Your task to perform on an android device: turn off data saver in the chrome app Image 0: 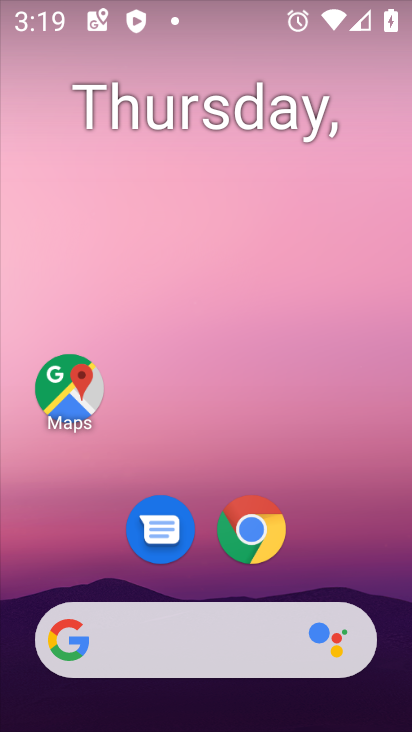
Step 0: click (252, 527)
Your task to perform on an android device: turn off data saver in the chrome app Image 1: 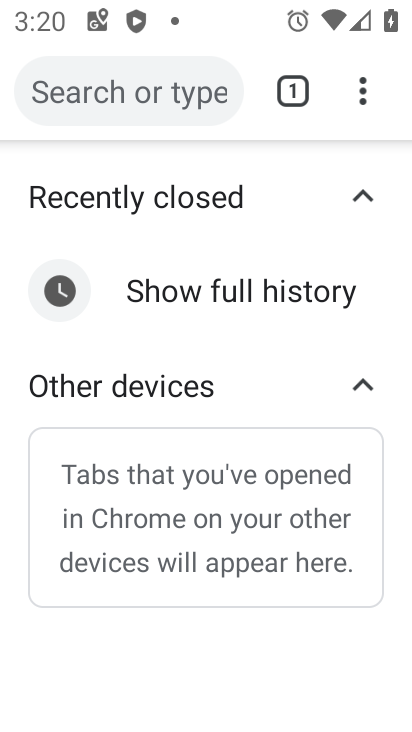
Step 1: click (363, 90)
Your task to perform on an android device: turn off data saver in the chrome app Image 2: 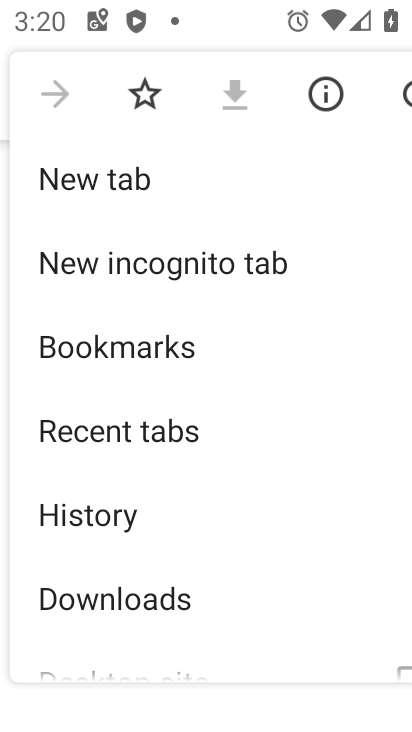
Step 2: drag from (207, 565) to (239, 386)
Your task to perform on an android device: turn off data saver in the chrome app Image 3: 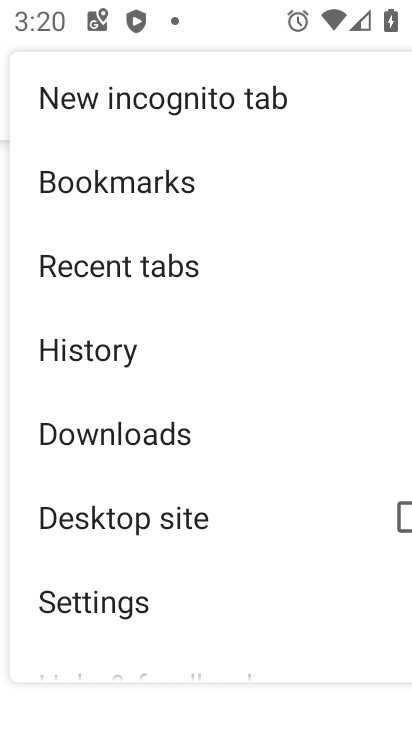
Step 3: click (93, 603)
Your task to perform on an android device: turn off data saver in the chrome app Image 4: 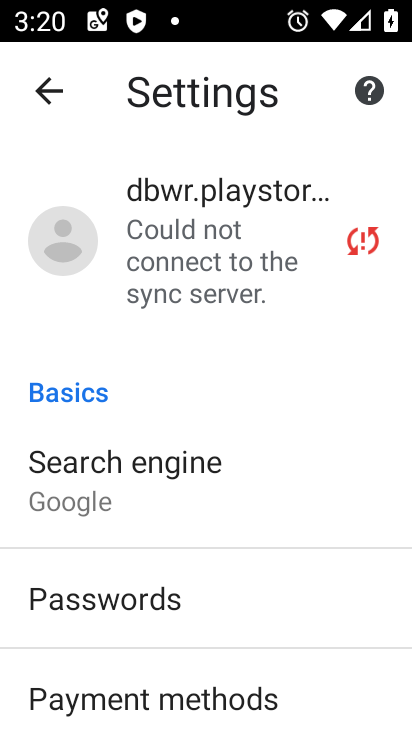
Step 4: drag from (248, 612) to (297, 433)
Your task to perform on an android device: turn off data saver in the chrome app Image 5: 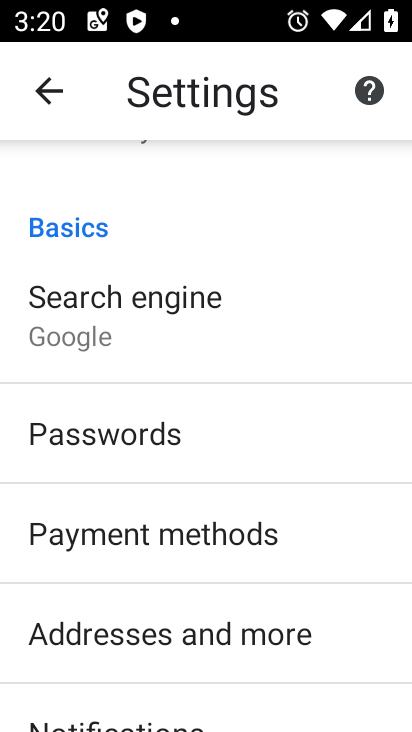
Step 5: drag from (271, 580) to (310, 449)
Your task to perform on an android device: turn off data saver in the chrome app Image 6: 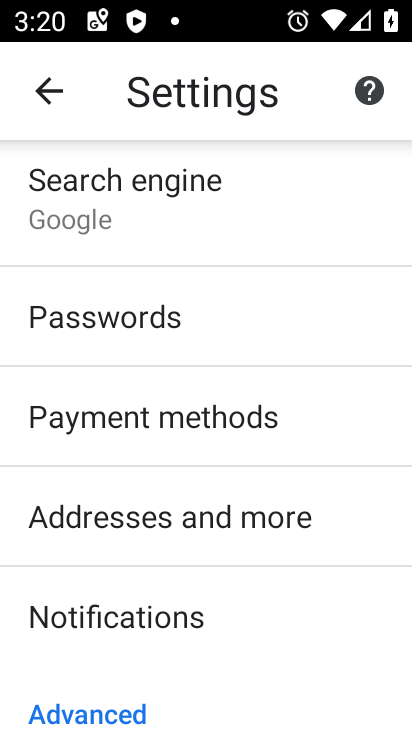
Step 6: drag from (245, 599) to (312, 396)
Your task to perform on an android device: turn off data saver in the chrome app Image 7: 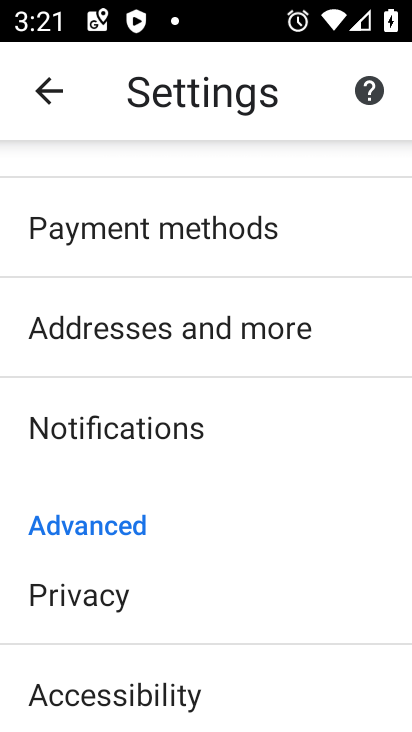
Step 7: drag from (204, 556) to (280, 299)
Your task to perform on an android device: turn off data saver in the chrome app Image 8: 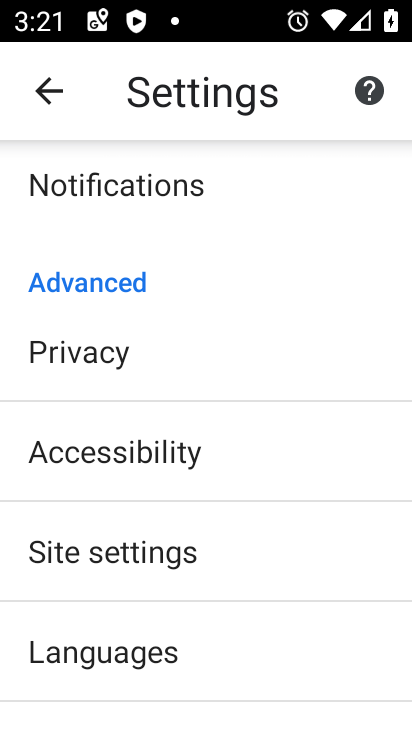
Step 8: drag from (232, 544) to (269, 370)
Your task to perform on an android device: turn off data saver in the chrome app Image 9: 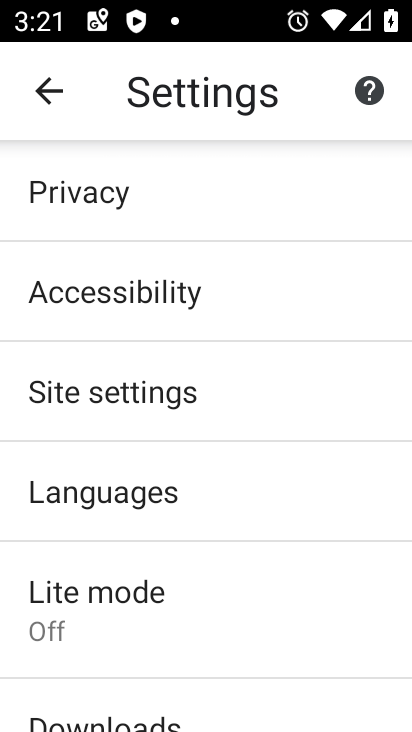
Step 9: click (122, 597)
Your task to perform on an android device: turn off data saver in the chrome app Image 10: 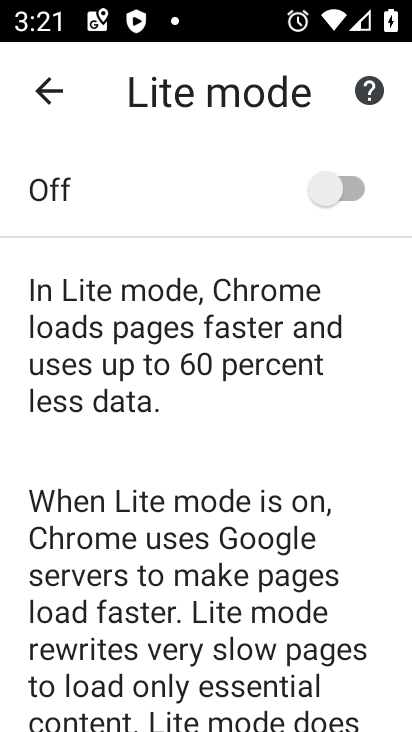
Step 10: task complete